Your task to perform on an android device: open device folders in google photos Image 0: 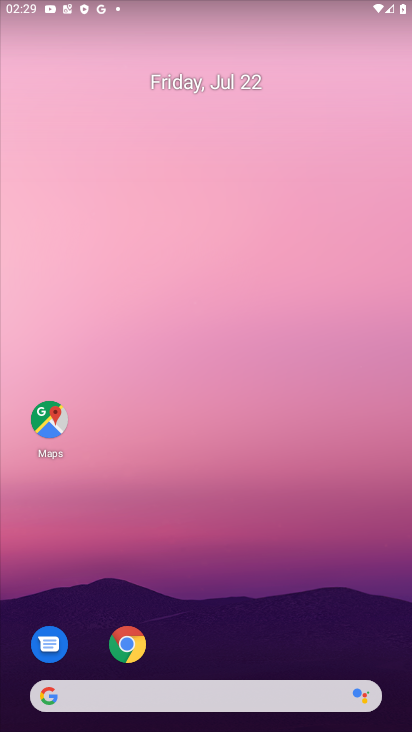
Step 0: drag from (243, 725) to (251, 102)
Your task to perform on an android device: open device folders in google photos Image 1: 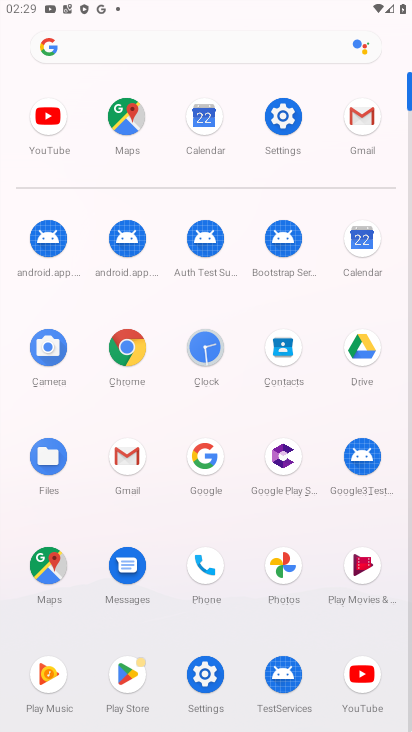
Step 1: click (280, 554)
Your task to perform on an android device: open device folders in google photos Image 2: 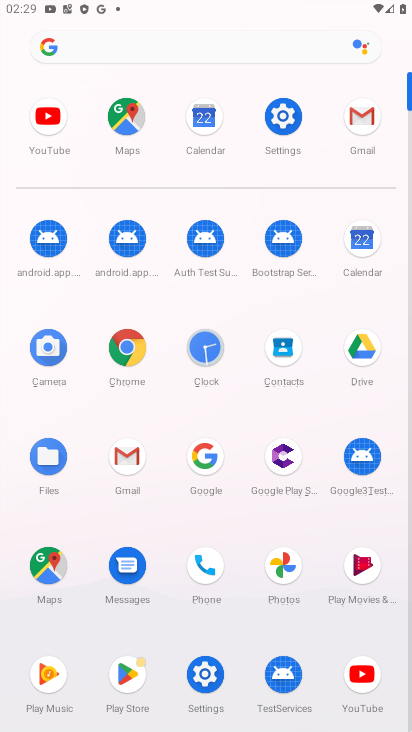
Step 2: click (280, 554)
Your task to perform on an android device: open device folders in google photos Image 3: 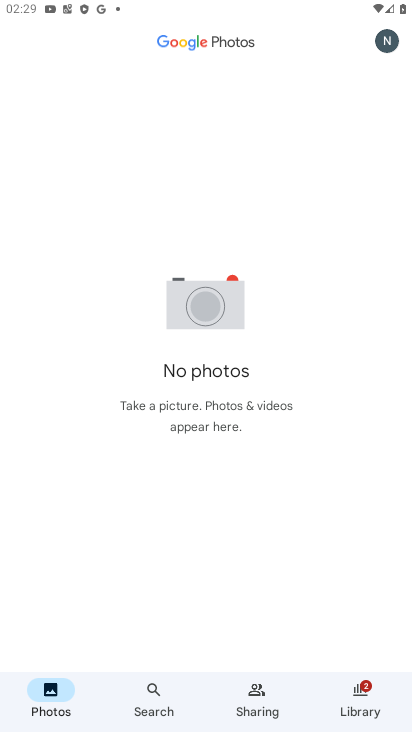
Step 3: click (382, 33)
Your task to perform on an android device: open device folders in google photos Image 4: 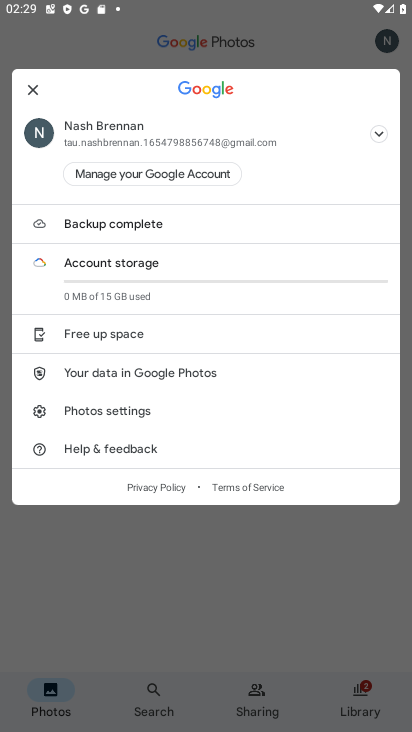
Step 4: click (161, 404)
Your task to perform on an android device: open device folders in google photos Image 5: 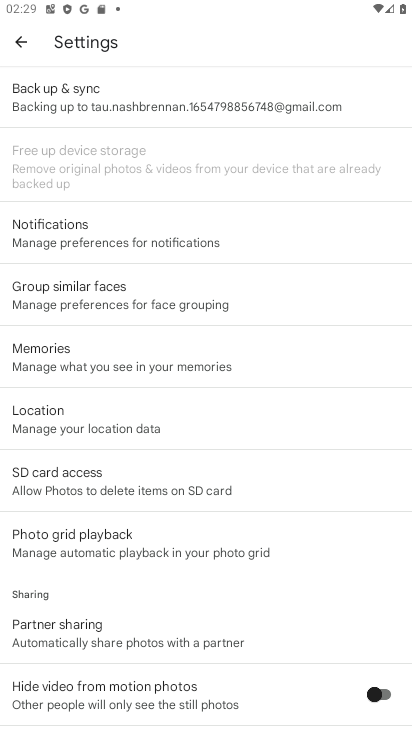
Step 5: click (312, 93)
Your task to perform on an android device: open device folders in google photos Image 6: 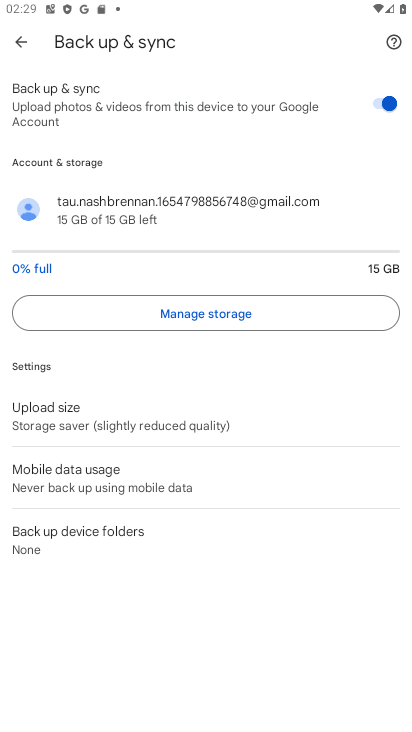
Step 6: task complete